Your task to perform on an android device: turn notification dots on Image 0: 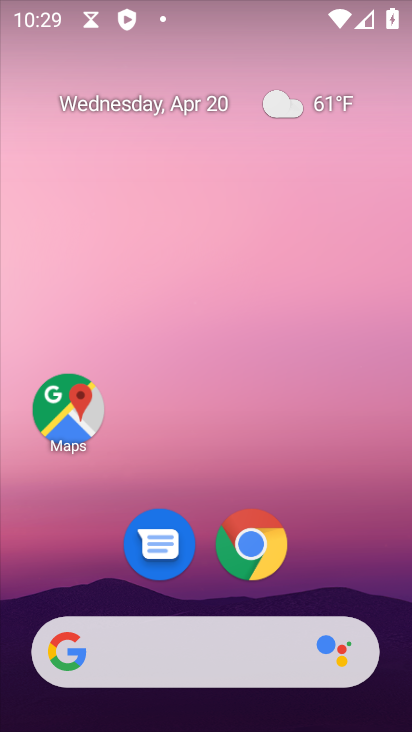
Step 0: drag from (218, 658) to (350, 113)
Your task to perform on an android device: turn notification dots on Image 1: 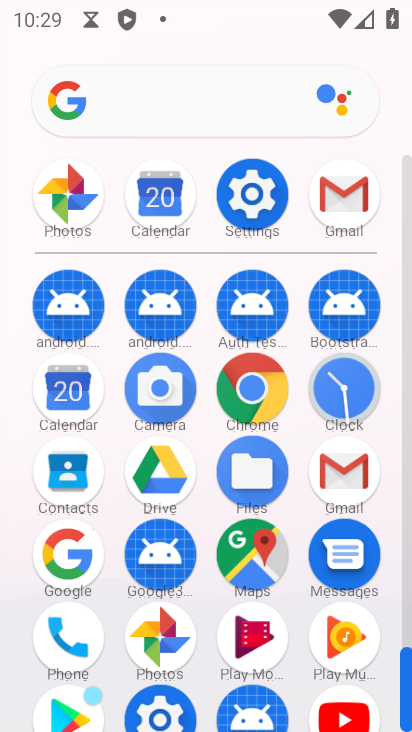
Step 1: click (263, 208)
Your task to perform on an android device: turn notification dots on Image 2: 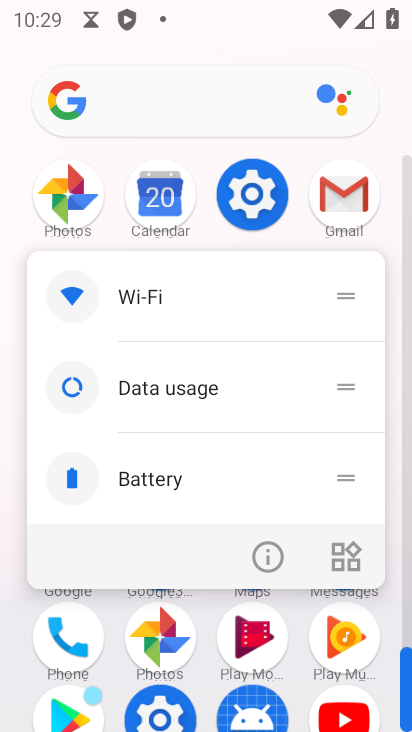
Step 2: click (253, 190)
Your task to perform on an android device: turn notification dots on Image 3: 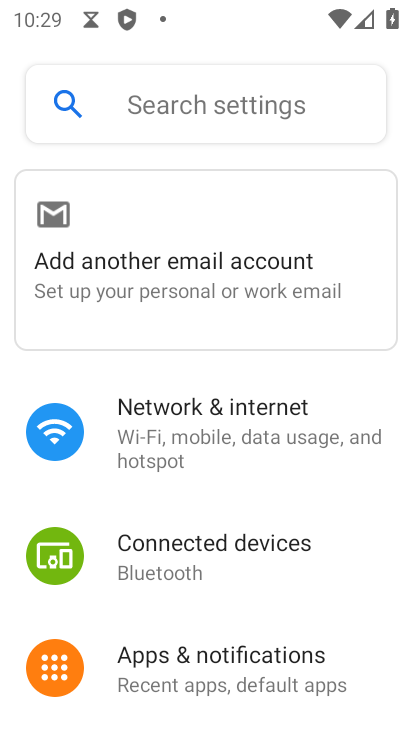
Step 3: click (187, 672)
Your task to perform on an android device: turn notification dots on Image 4: 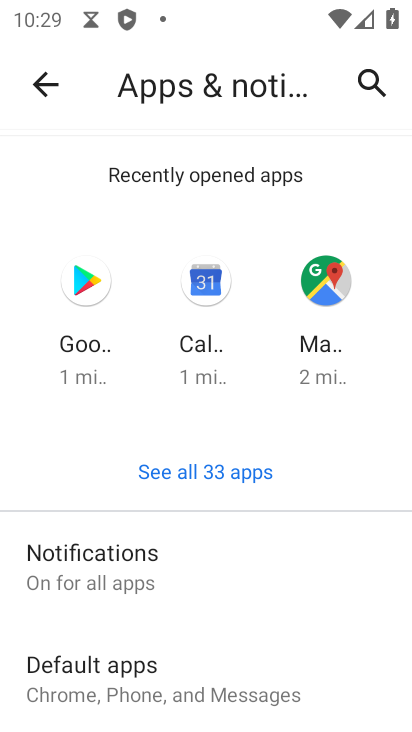
Step 4: click (115, 576)
Your task to perform on an android device: turn notification dots on Image 5: 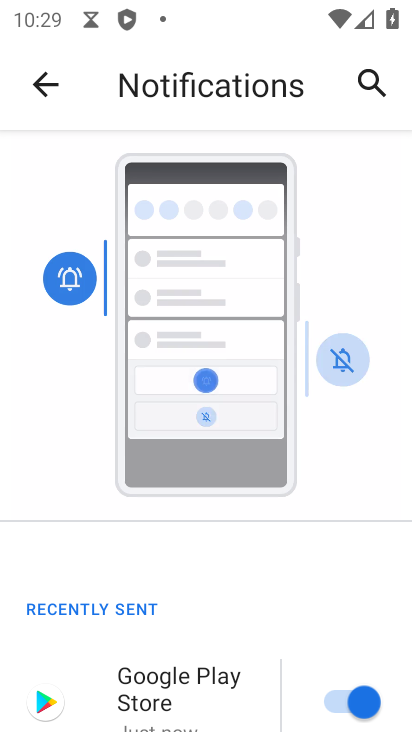
Step 5: drag from (229, 548) to (350, 131)
Your task to perform on an android device: turn notification dots on Image 6: 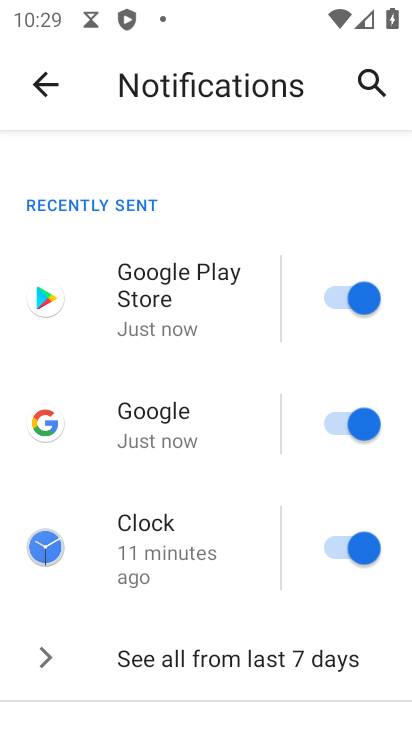
Step 6: drag from (168, 630) to (345, 47)
Your task to perform on an android device: turn notification dots on Image 7: 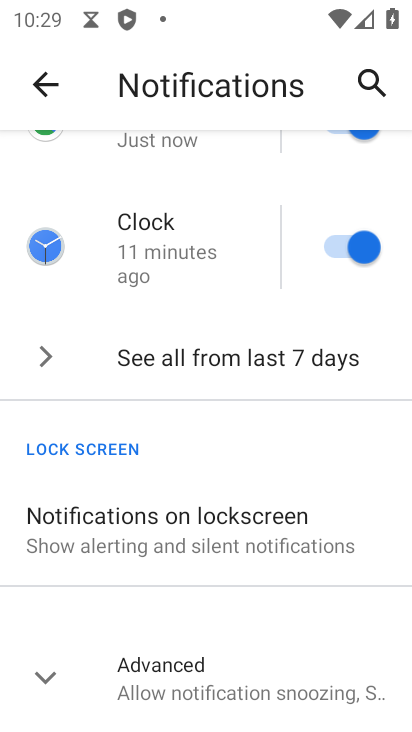
Step 7: click (169, 664)
Your task to perform on an android device: turn notification dots on Image 8: 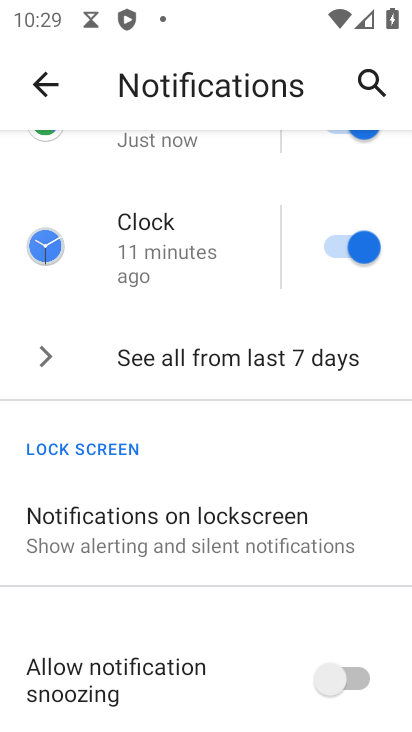
Step 8: task complete